Your task to perform on an android device: Search for the best rated book on Goodreads. Image 0: 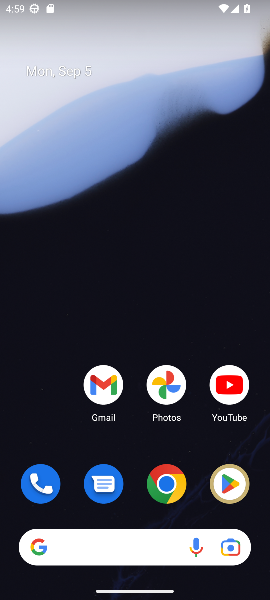
Step 0: click (169, 485)
Your task to perform on an android device: Search for the best rated book on Goodreads. Image 1: 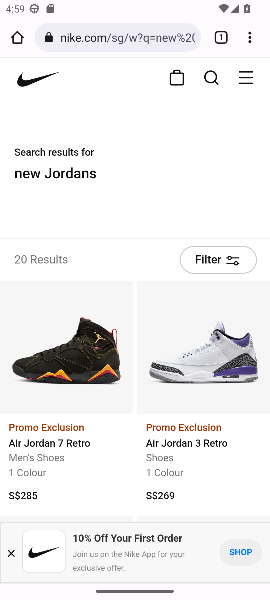
Step 1: click (156, 38)
Your task to perform on an android device: Search for the best rated book on Goodreads. Image 2: 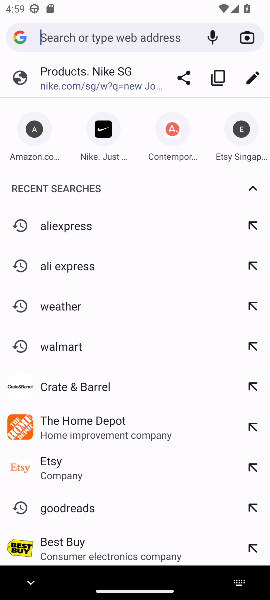
Step 2: type "Goodreads"
Your task to perform on an android device: Search for the best rated book on Goodreads. Image 3: 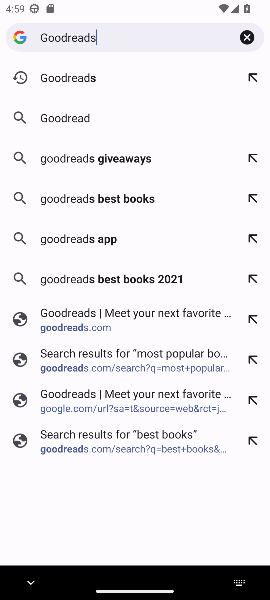
Step 3: press enter
Your task to perform on an android device: Search for the best rated book on Goodreads. Image 4: 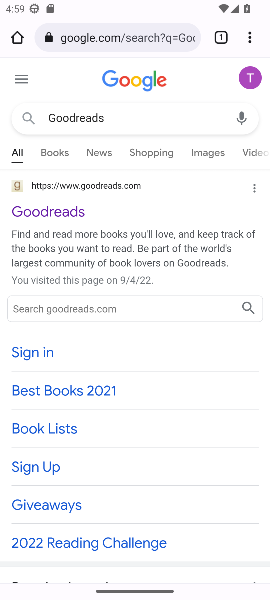
Step 4: click (54, 212)
Your task to perform on an android device: Search for the best rated book on Goodreads. Image 5: 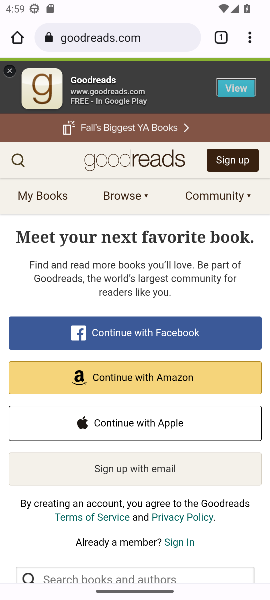
Step 5: click (19, 155)
Your task to perform on an android device: Search for the best rated book on Goodreads. Image 6: 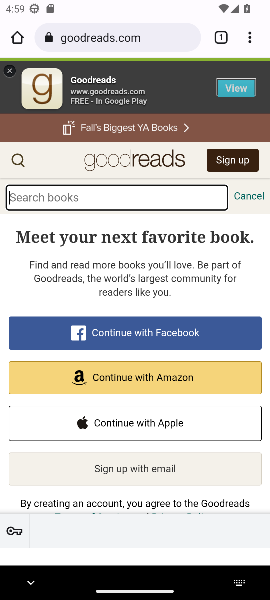
Step 6: press enter
Your task to perform on an android device: Search for the best rated book on Goodreads. Image 7: 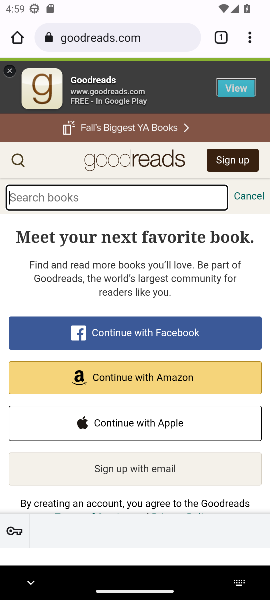
Step 7: type " best rated book"
Your task to perform on an android device: Search for the best rated book on Goodreads. Image 8: 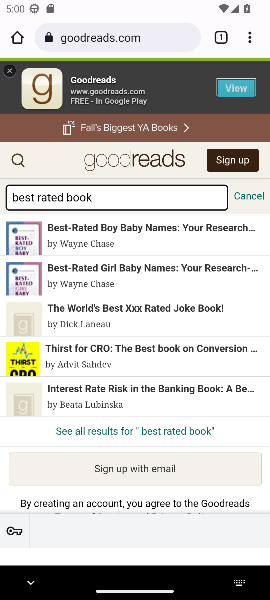
Step 8: task complete